Your task to perform on an android device: check storage Image 0: 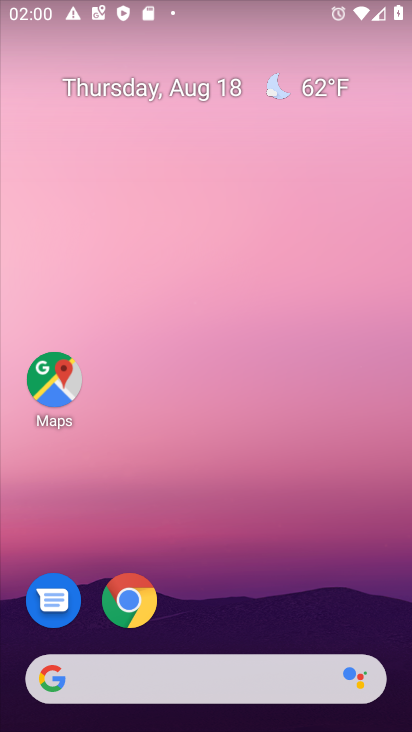
Step 0: press home button
Your task to perform on an android device: check storage Image 1: 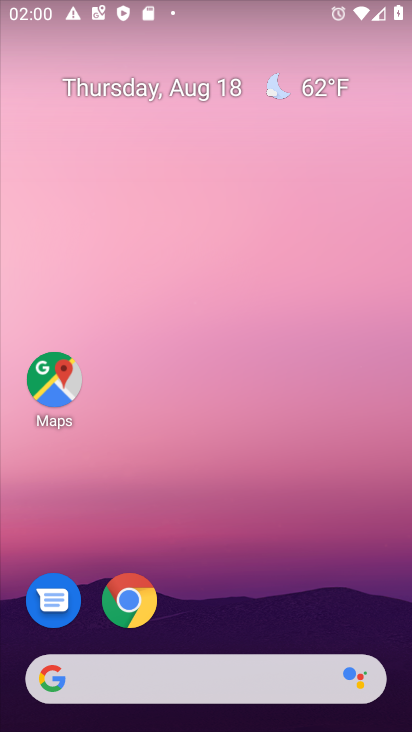
Step 1: drag from (279, 65) to (274, 10)
Your task to perform on an android device: check storage Image 2: 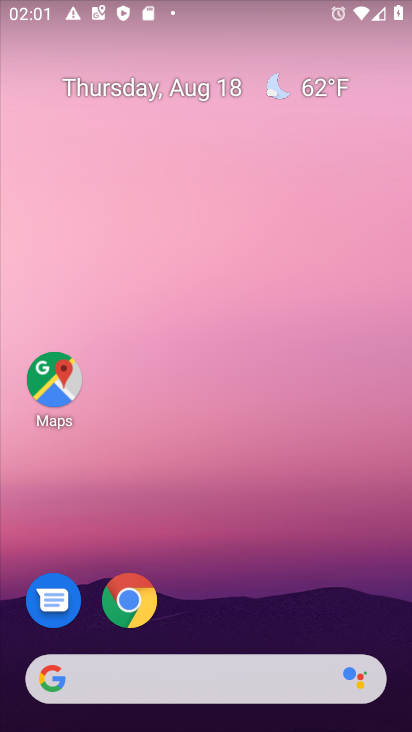
Step 2: drag from (232, 625) to (259, 58)
Your task to perform on an android device: check storage Image 3: 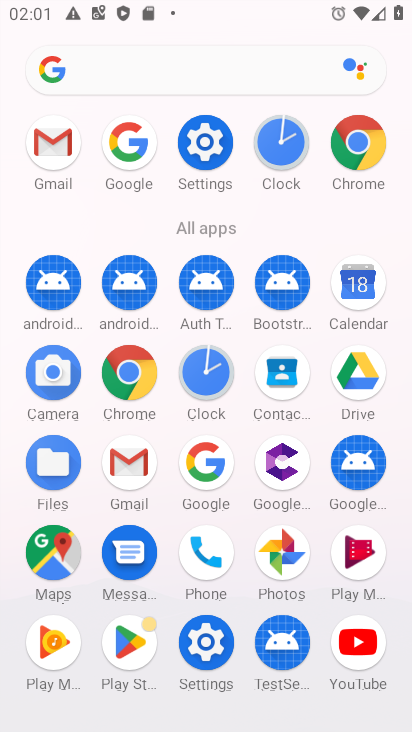
Step 3: click (196, 130)
Your task to perform on an android device: check storage Image 4: 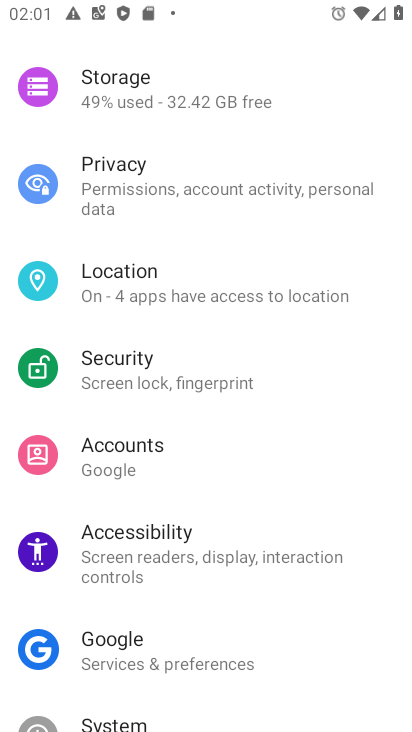
Step 4: drag from (198, 618) to (71, 731)
Your task to perform on an android device: check storage Image 5: 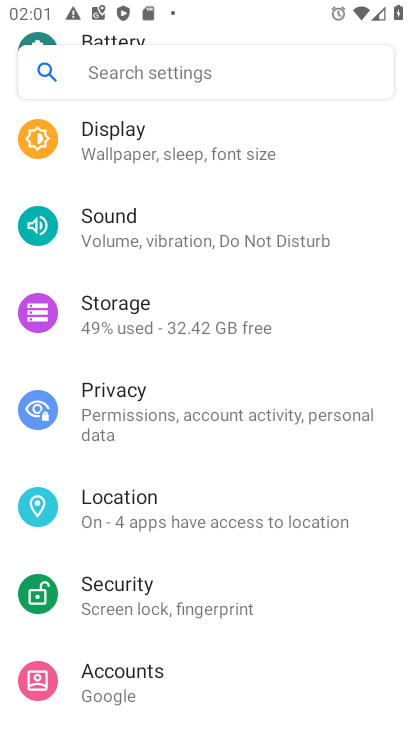
Step 5: click (140, 312)
Your task to perform on an android device: check storage Image 6: 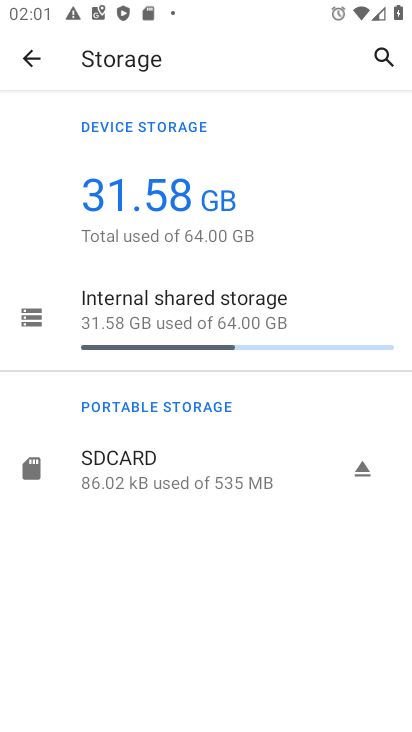
Step 6: task complete